Your task to perform on an android device: Open the phone app and click the voicemail tab. Image 0: 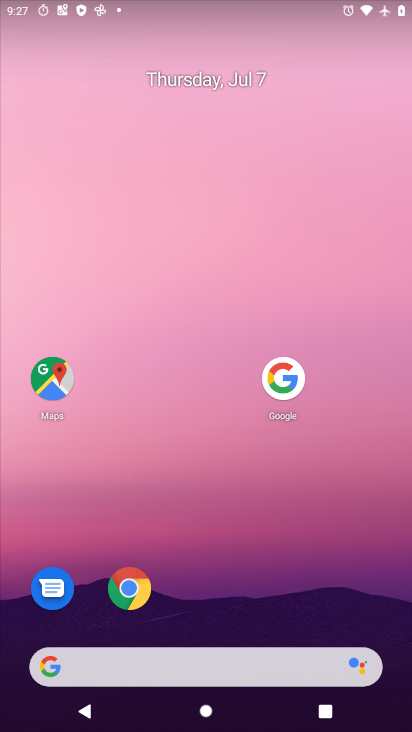
Step 0: drag from (221, 660) to (313, 166)
Your task to perform on an android device: Open the phone app and click the voicemail tab. Image 1: 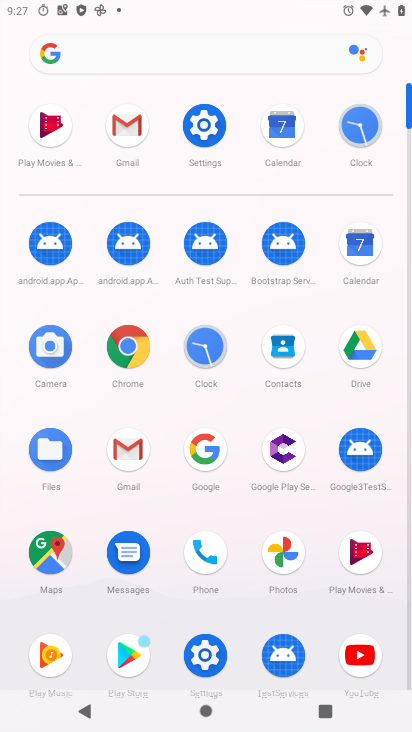
Step 1: click (191, 552)
Your task to perform on an android device: Open the phone app and click the voicemail tab. Image 2: 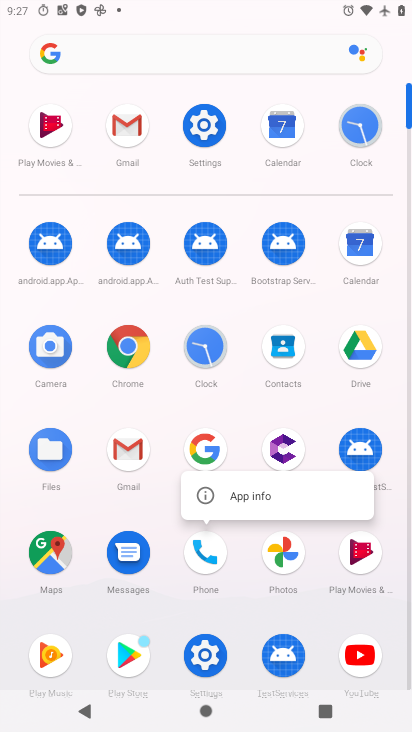
Step 2: click (199, 545)
Your task to perform on an android device: Open the phone app and click the voicemail tab. Image 3: 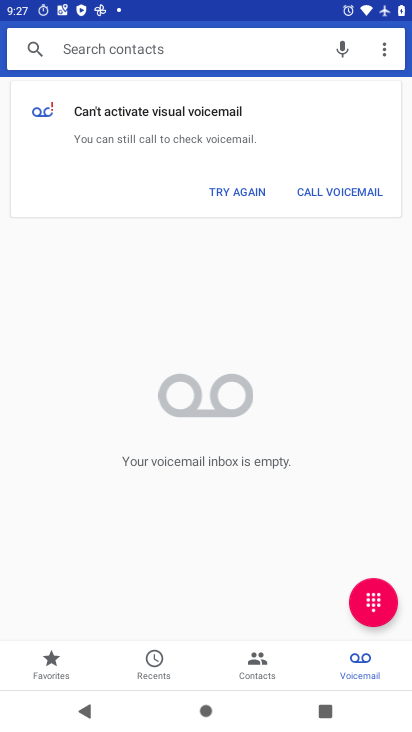
Step 3: click (350, 666)
Your task to perform on an android device: Open the phone app and click the voicemail tab. Image 4: 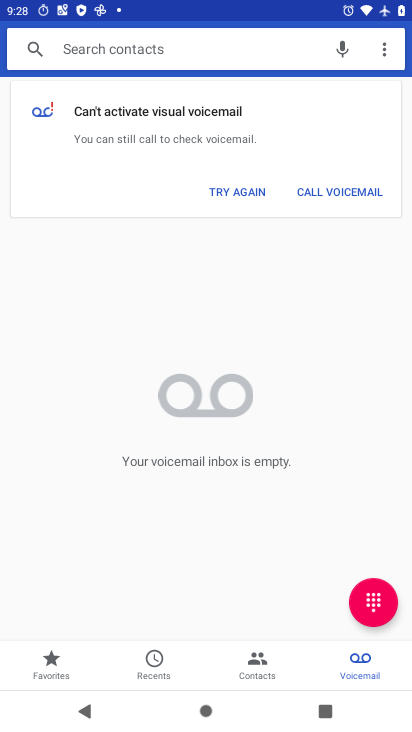
Step 4: task complete